Your task to perform on an android device: allow notifications from all sites in the chrome app Image 0: 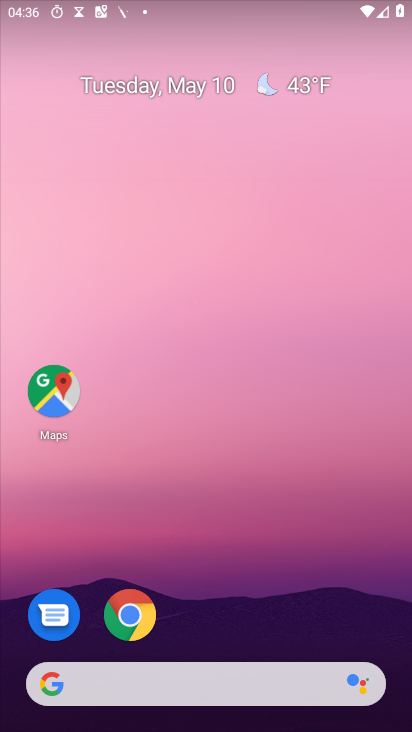
Step 0: drag from (287, 674) to (385, 235)
Your task to perform on an android device: allow notifications from all sites in the chrome app Image 1: 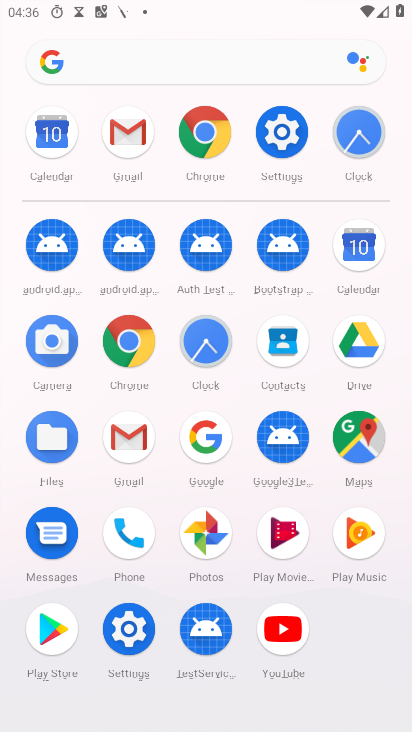
Step 1: click (142, 351)
Your task to perform on an android device: allow notifications from all sites in the chrome app Image 2: 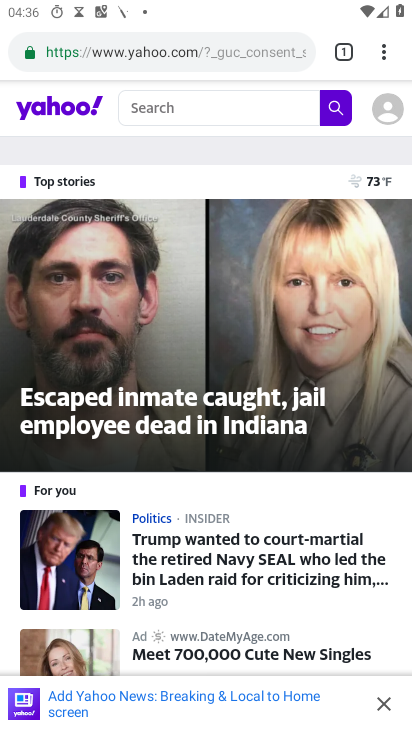
Step 2: drag from (384, 50) to (200, 637)
Your task to perform on an android device: allow notifications from all sites in the chrome app Image 3: 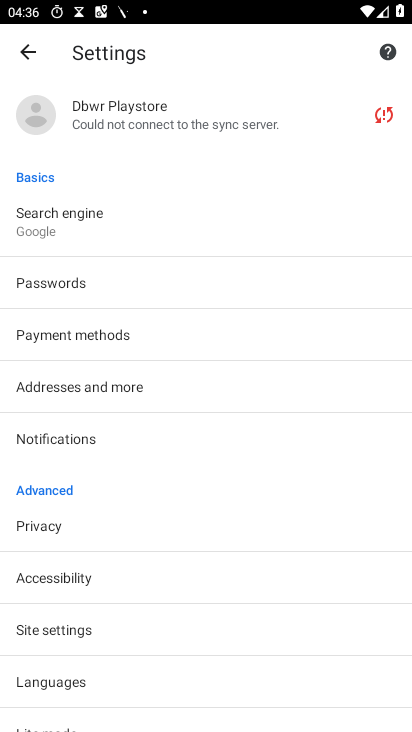
Step 3: click (101, 628)
Your task to perform on an android device: allow notifications from all sites in the chrome app Image 4: 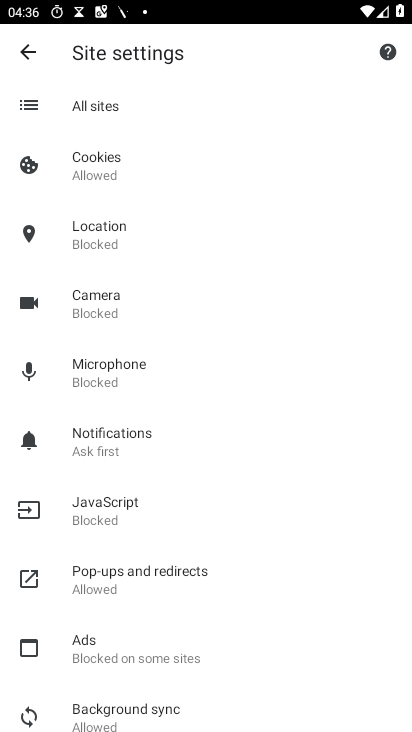
Step 4: click (121, 441)
Your task to perform on an android device: allow notifications from all sites in the chrome app Image 5: 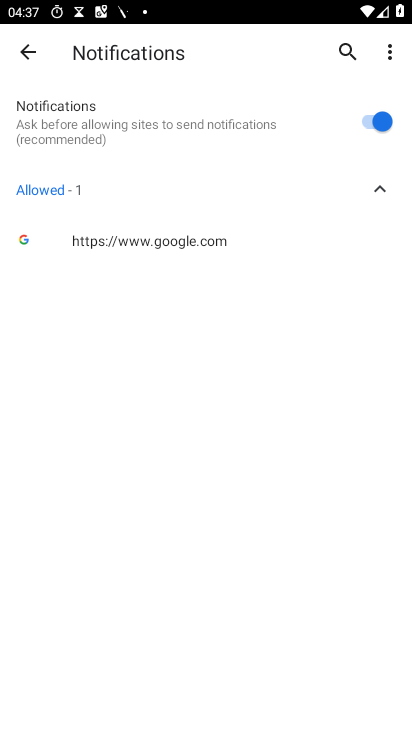
Step 5: task complete